Your task to perform on an android device: Open calendar and show me the first week of next month Image 0: 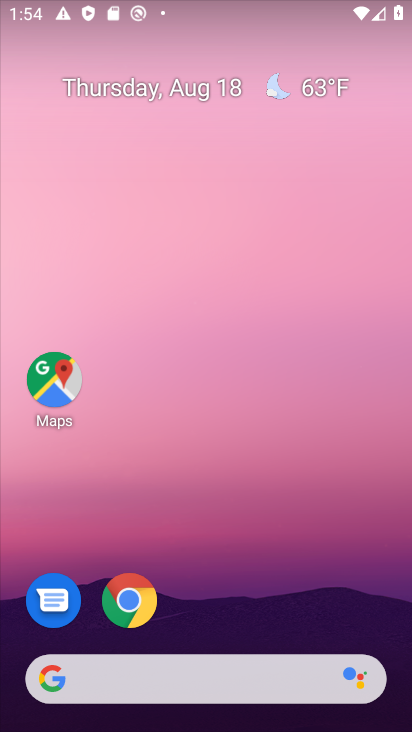
Step 0: drag from (218, 608) to (143, 114)
Your task to perform on an android device: Open calendar and show me the first week of next month Image 1: 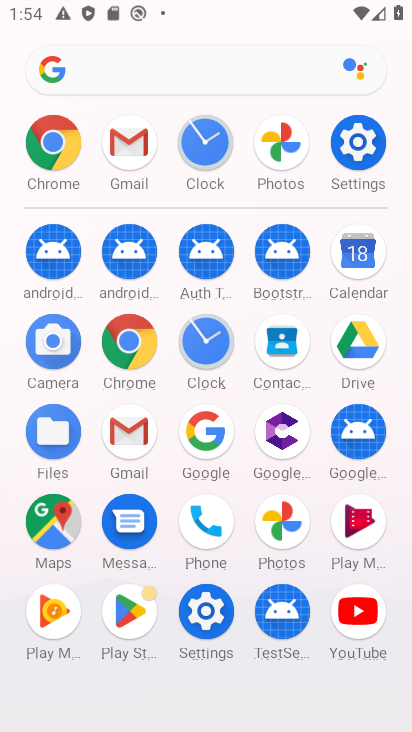
Step 1: click (352, 256)
Your task to perform on an android device: Open calendar and show me the first week of next month Image 2: 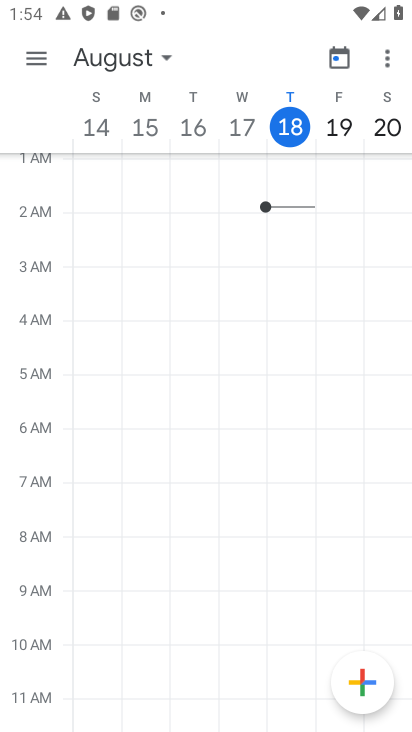
Step 2: click (32, 57)
Your task to perform on an android device: Open calendar and show me the first week of next month Image 3: 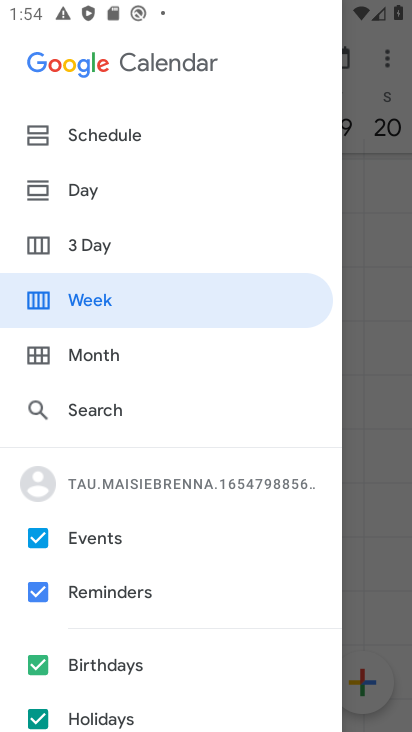
Step 3: click (92, 295)
Your task to perform on an android device: Open calendar and show me the first week of next month Image 4: 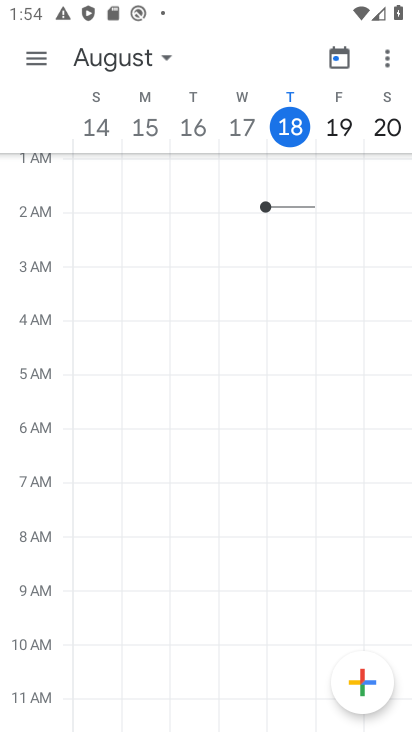
Step 4: click (169, 53)
Your task to perform on an android device: Open calendar and show me the first week of next month Image 5: 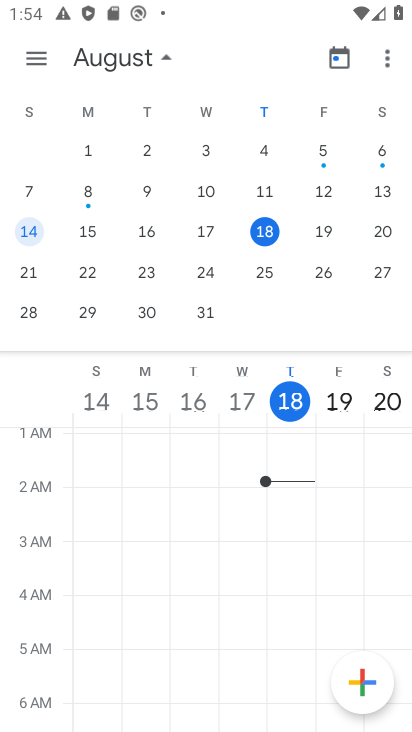
Step 5: drag from (368, 173) to (57, 108)
Your task to perform on an android device: Open calendar and show me the first week of next month Image 6: 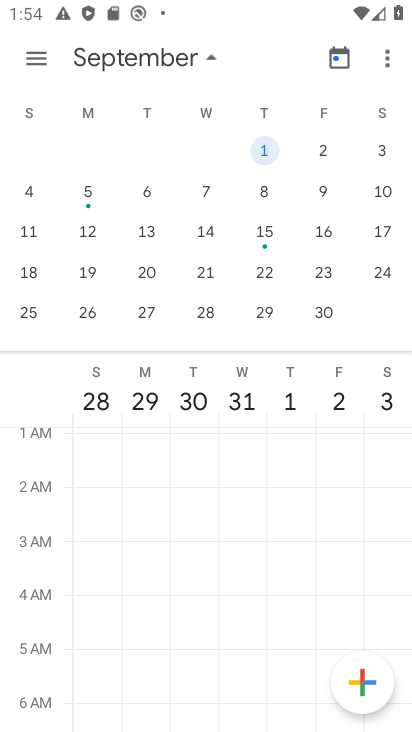
Step 6: click (267, 143)
Your task to perform on an android device: Open calendar and show me the first week of next month Image 7: 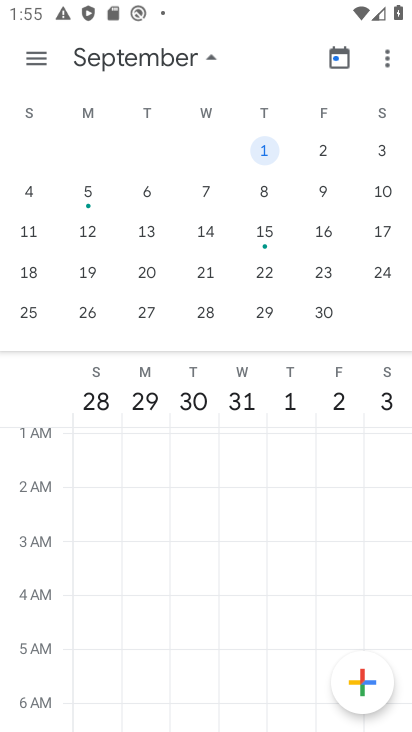
Step 7: task complete